Your task to perform on an android device: Is it going to rain tomorrow? Image 0: 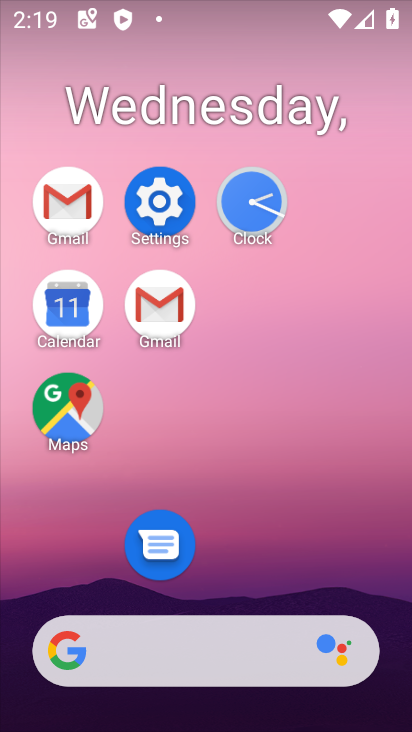
Step 0: drag from (339, 517) to (346, 91)
Your task to perform on an android device: Is it going to rain tomorrow? Image 1: 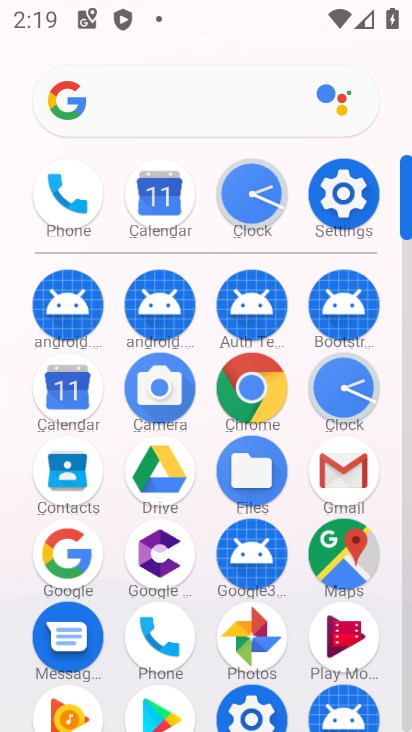
Step 1: drag from (70, 556) to (244, 287)
Your task to perform on an android device: Is it going to rain tomorrow? Image 2: 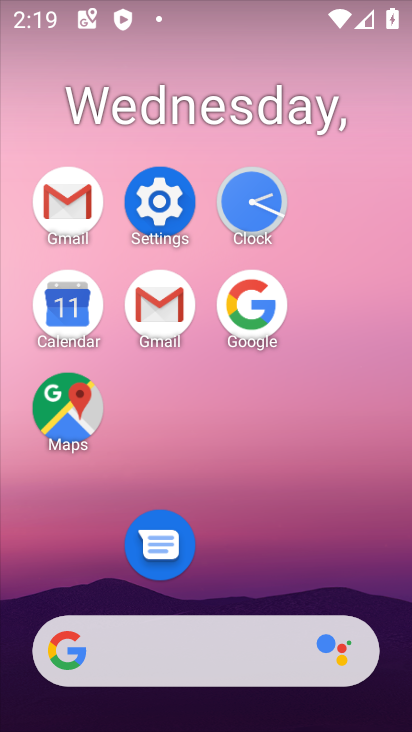
Step 2: click (247, 304)
Your task to perform on an android device: Is it going to rain tomorrow? Image 3: 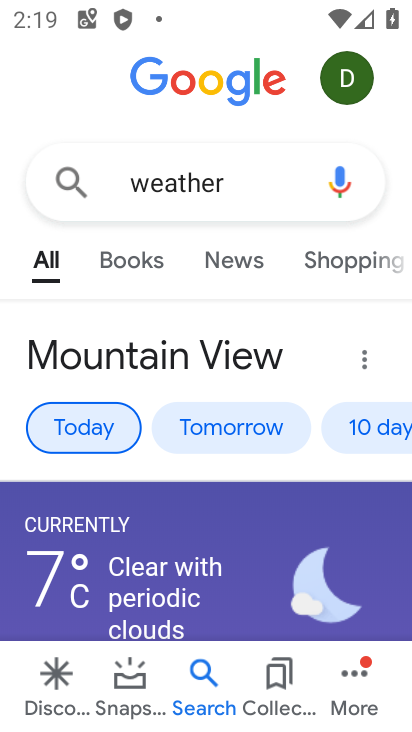
Step 3: click (202, 418)
Your task to perform on an android device: Is it going to rain tomorrow? Image 4: 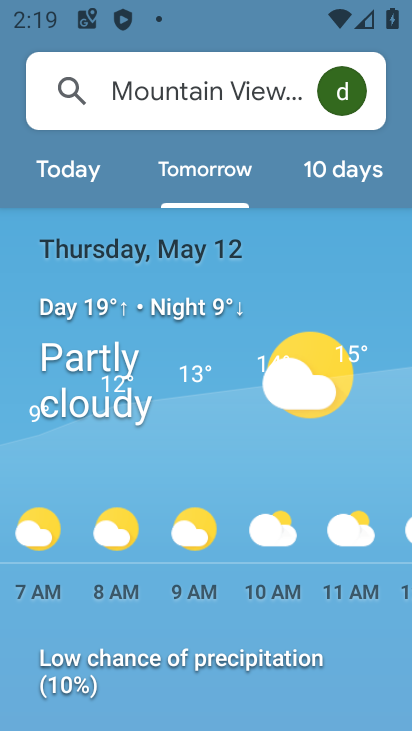
Step 4: task complete